Your task to perform on an android device: check storage Image 0: 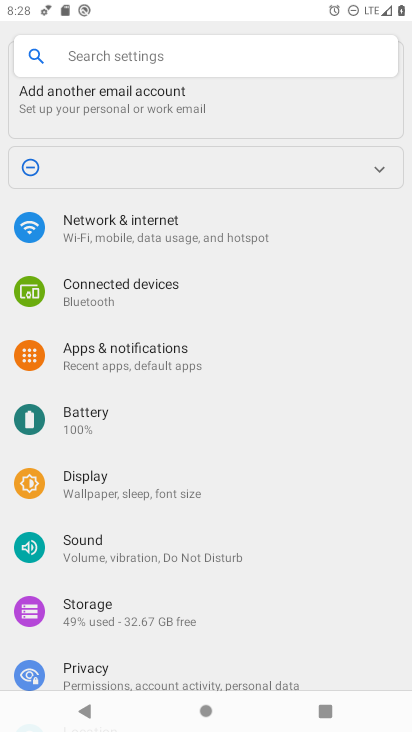
Step 0: press home button
Your task to perform on an android device: check storage Image 1: 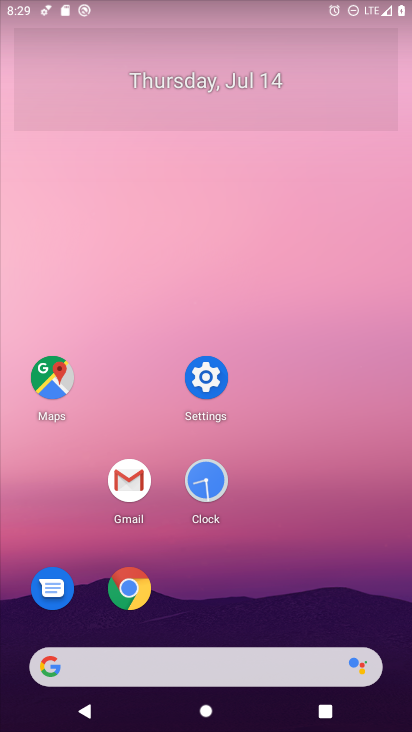
Step 1: click (212, 364)
Your task to perform on an android device: check storage Image 2: 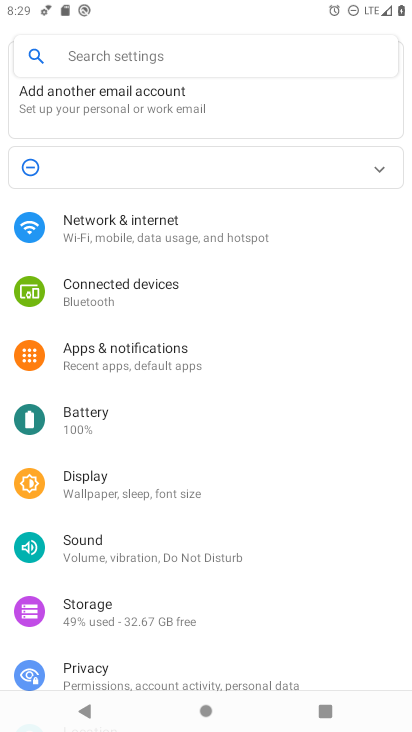
Step 2: click (90, 603)
Your task to perform on an android device: check storage Image 3: 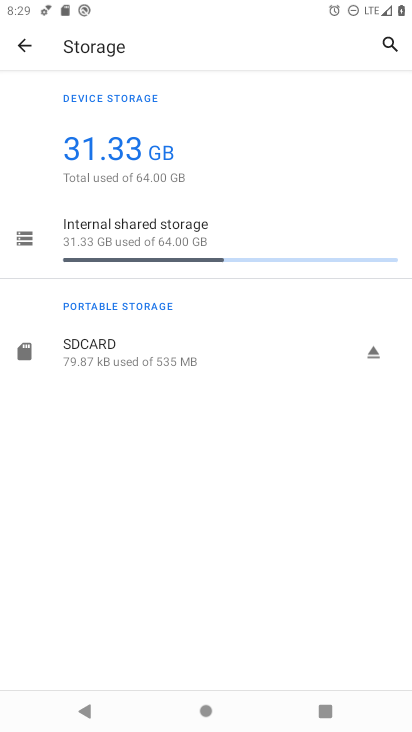
Step 3: task complete